Your task to perform on an android device: turn off wifi Image 0: 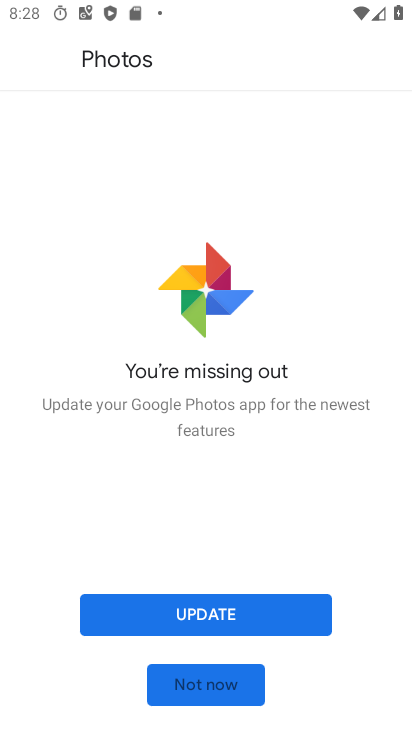
Step 0: click (199, 693)
Your task to perform on an android device: turn off wifi Image 1: 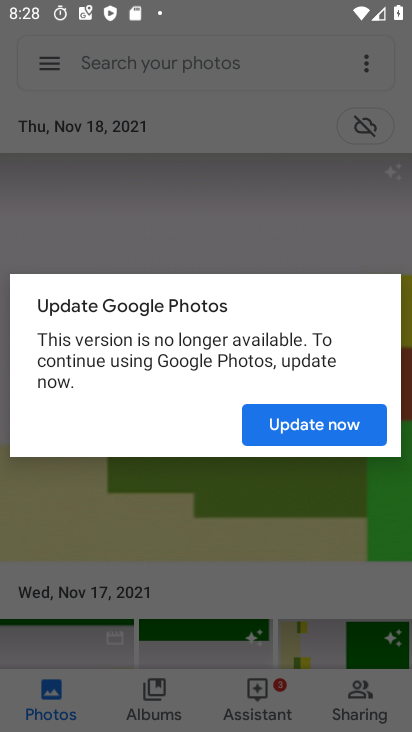
Step 1: click (321, 438)
Your task to perform on an android device: turn off wifi Image 2: 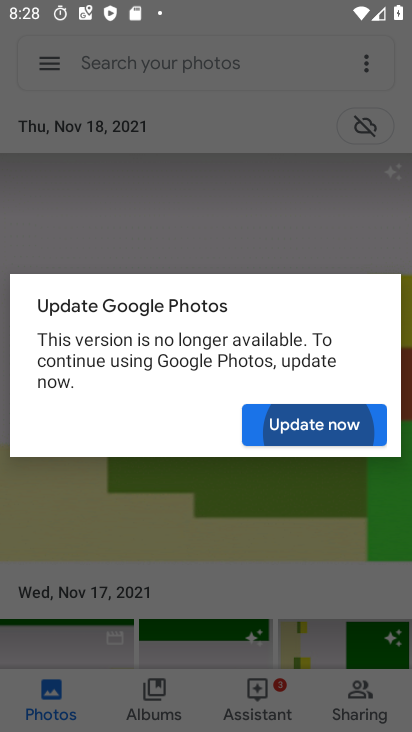
Step 2: click (321, 438)
Your task to perform on an android device: turn off wifi Image 3: 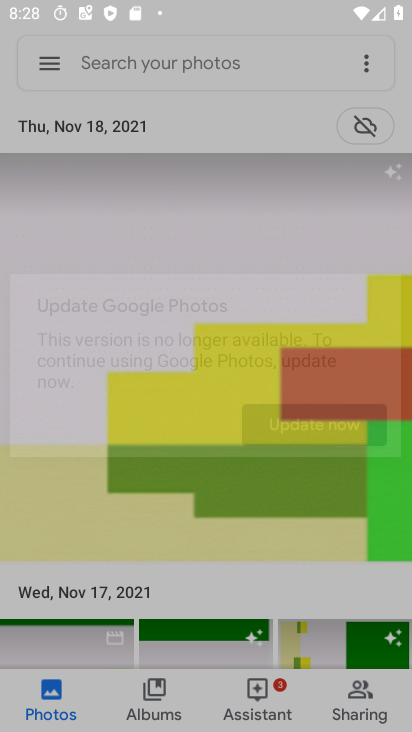
Step 3: click (323, 436)
Your task to perform on an android device: turn off wifi Image 4: 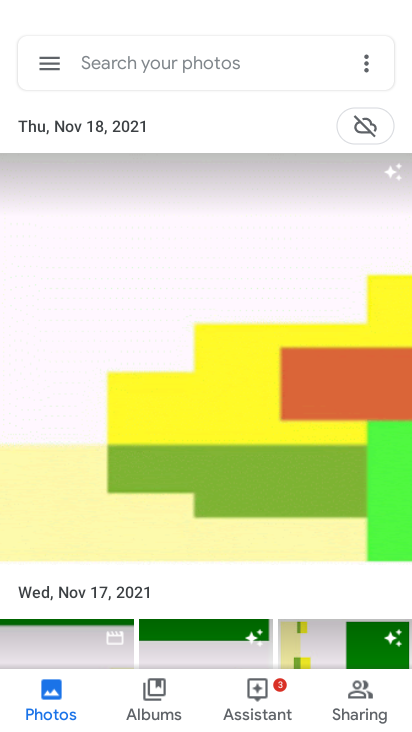
Step 4: click (323, 435)
Your task to perform on an android device: turn off wifi Image 5: 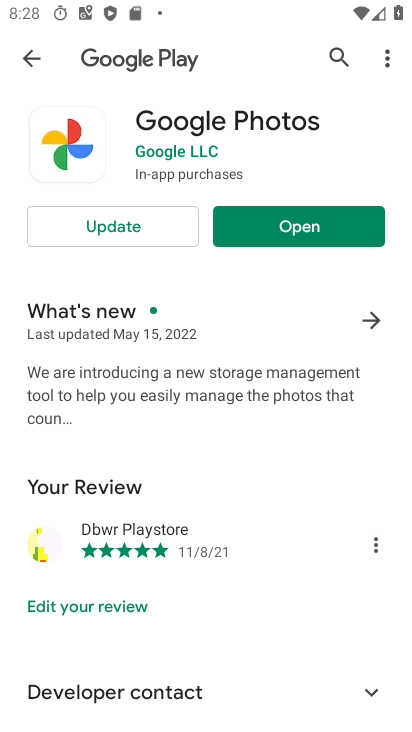
Step 5: click (105, 231)
Your task to perform on an android device: turn off wifi Image 6: 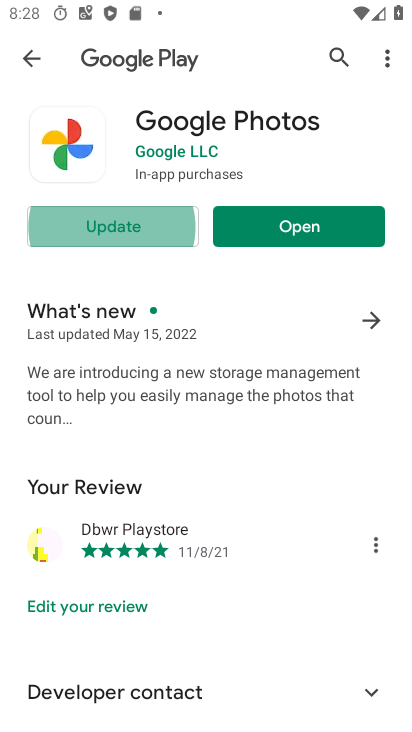
Step 6: click (105, 231)
Your task to perform on an android device: turn off wifi Image 7: 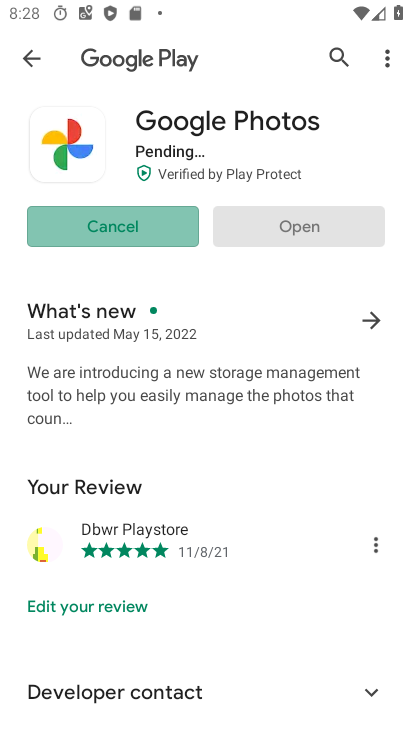
Step 7: click (105, 230)
Your task to perform on an android device: turn off wifi Image 8: 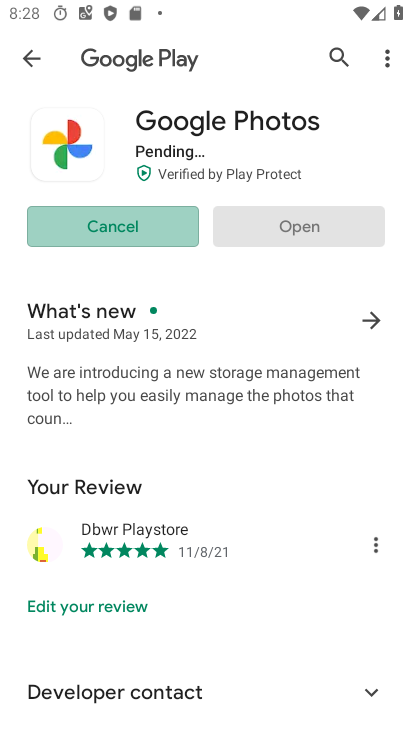
Step 8: click (104, 229)
Your task to perform on an android device: turn off wifi Image 9: 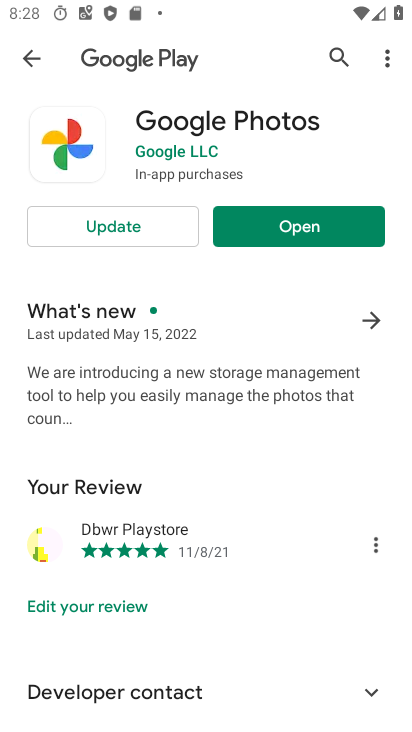
Step 9: click (331, 229)
Your task to perform on an android device: turn off wifi Image 10: 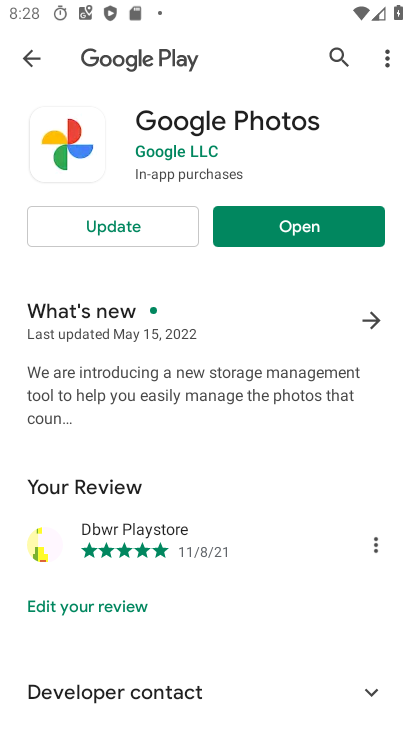
Step 10: click (331, 229)
Your task to perform on an android device: turn off wifi Image 11: 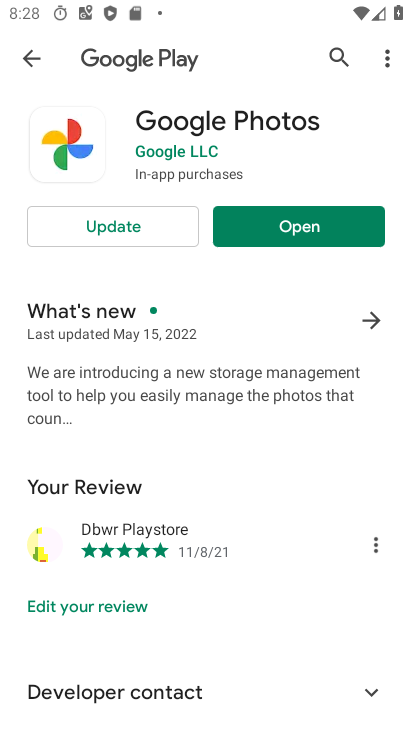
Step 11: click (332, 232)
Your task to perform on an android device: turn off wifi Image 12: 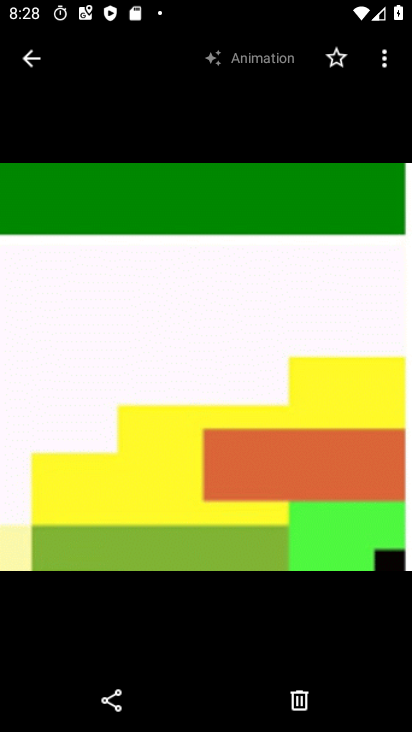
Step 12: click (31, 56)
Your task to perform on an android device: turn off wifi Image 13: 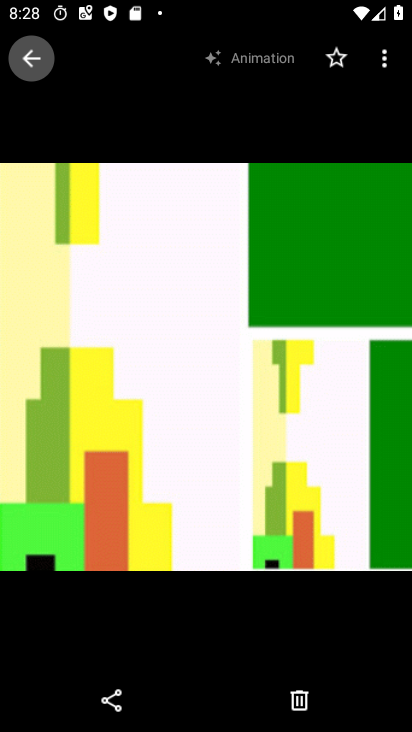
Step 13: click (60, 70)
Your task to perform on an android device: turn off wifi Image 14: 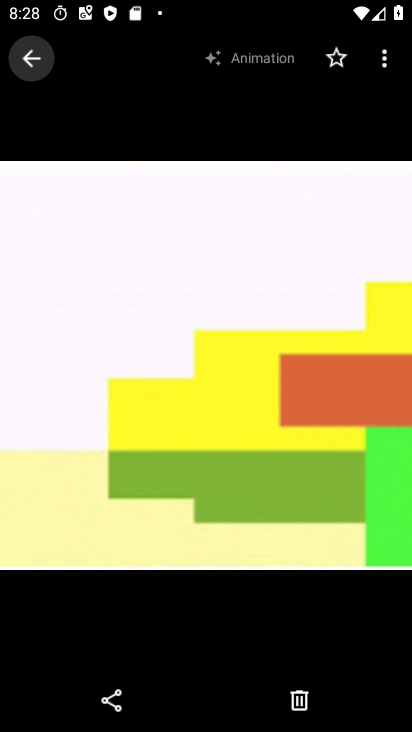
Step 14: click (83, 89)
Your task to perform on an android device: turn off wifi Image 15: 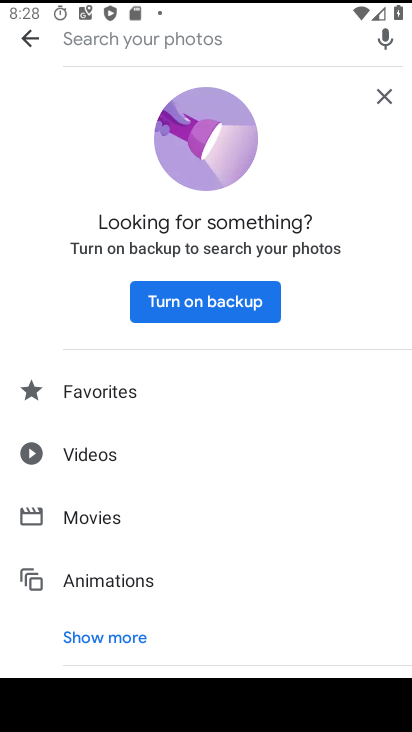
Step 15: press back button
Your task to perform on an android device: turn off wifi Image 16: 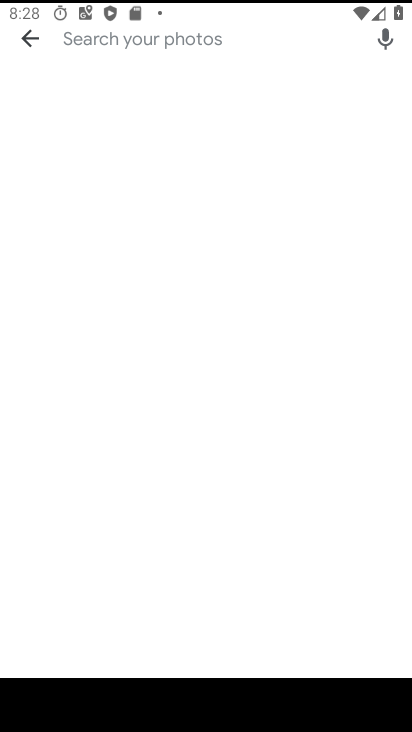
Step 16: press back button
Your task to perform on an android device: turn off wifi Image 17: 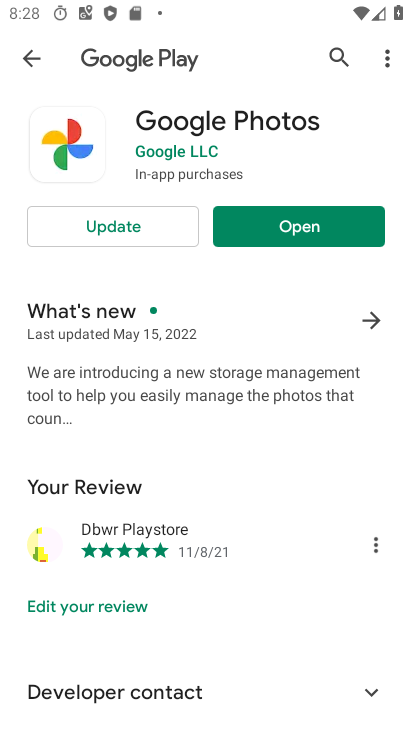
Step 17: press home button
Your task to perform on an android device: turn off wifi Image 18: 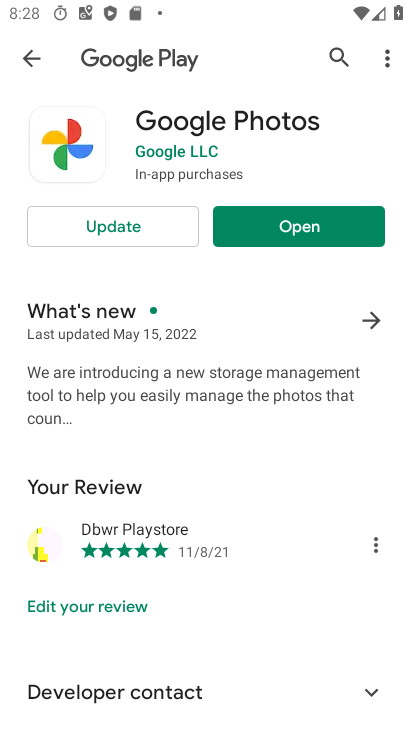
Step 18: press home button
Your task to perform on an android device: turn off wifi Image 19: 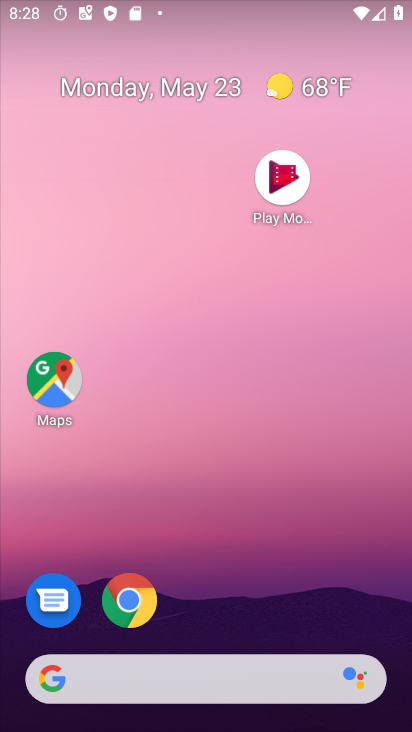
Step 19: press home button
Your task to perform on an android device: turn off wifi Image 20: 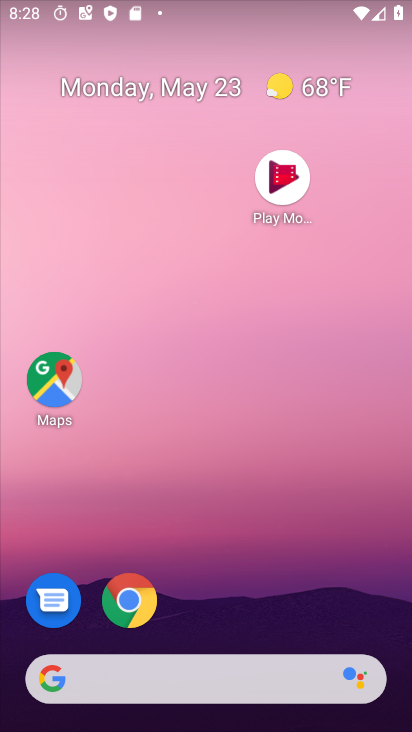
Step 20: drag from (227, 662) to (156, 184)
Your task to perform on an android device: turn off wifi Image 21: 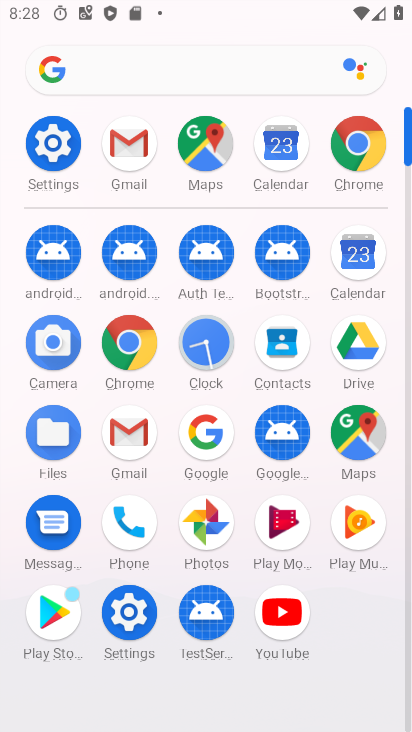
Step 21: click (53, 155)
Your task to perform on an android device: turn off wifi Image 22: 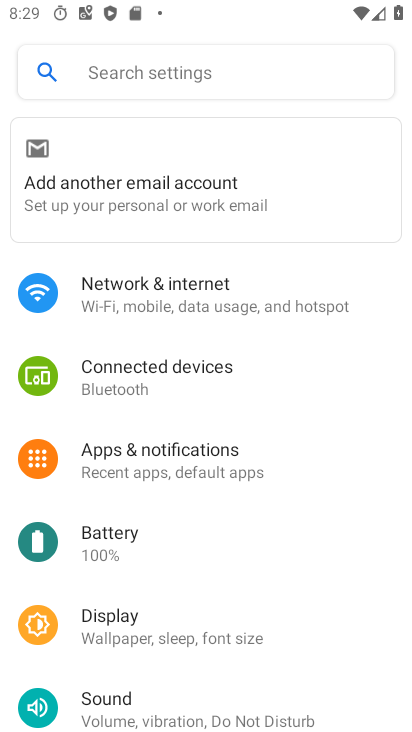
Step 22: click (172, 291)
Your task to perform on an android device: turn off wifi Image 23: 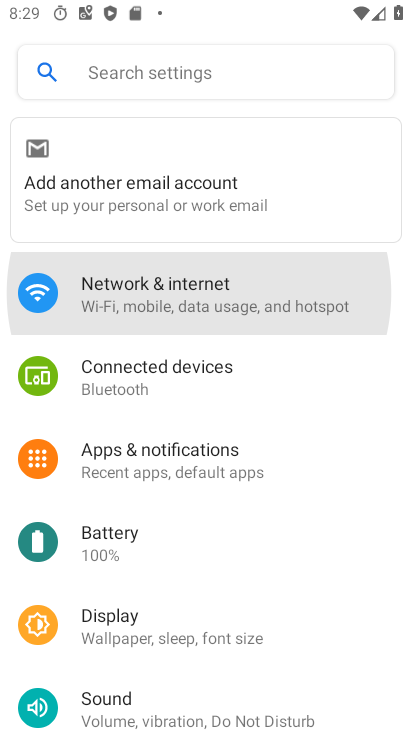
Step 23: click (172, 291)
Your task to perform on an android device: turn off wifi Image 24: 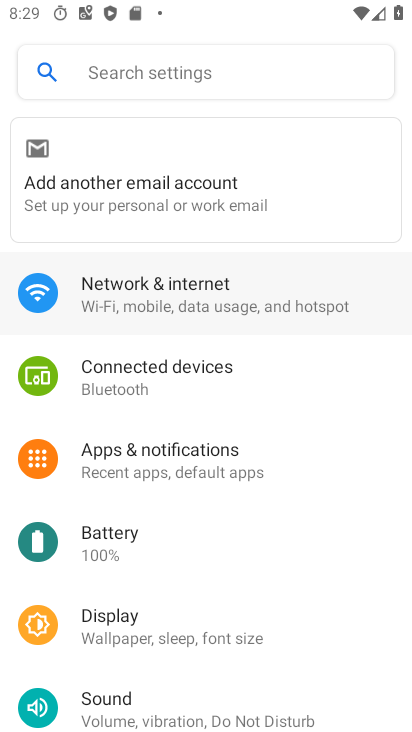
Step 24: click (172, 291)
Your task to perform on an android device: turn off wifi Image 25: 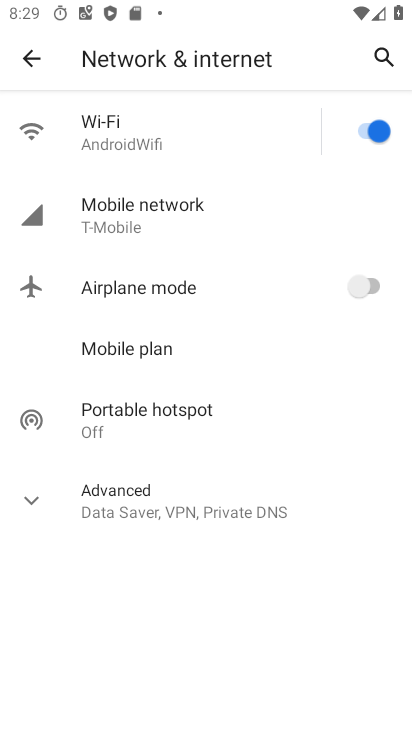
Step 25: task complete